Your task to perform on an android device: Go to sound settings Image 0: 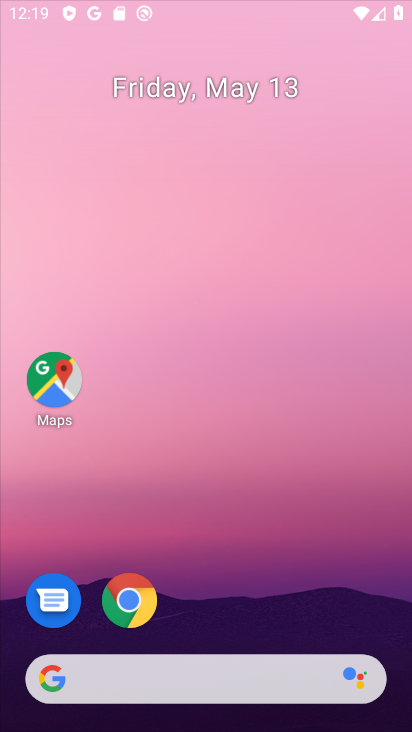
Step 0: click (223, 15)
Your task to perform on an android device: Go to sound settings Image 1: 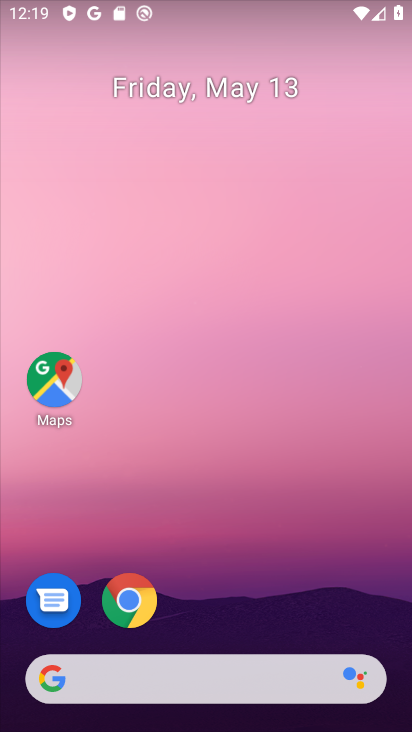
Step 1: drag from (212, 628) to (306, 114)
Your task to perform on an android device: Go to sound settings Image 2: 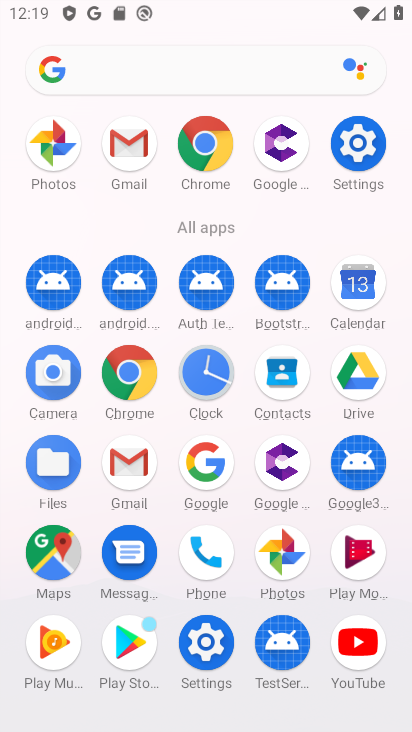
Step 2: click (350, 140)
Your task to perform on an android device: Go to sound settings Image 3: 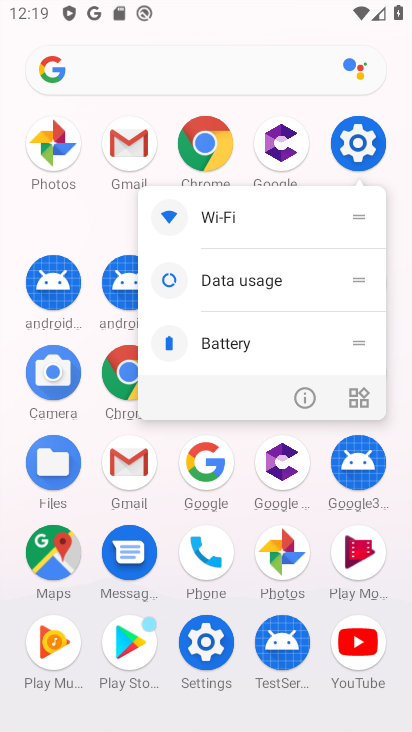
Step 3: click (301, 409)
Your task to perform on an android device: Go to sound settings Image 4: 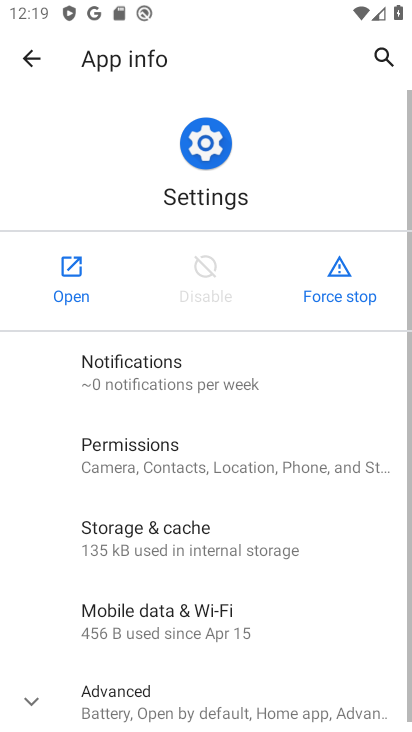
Step 4: click (71, 276)
Your task to perform on an android device: Go to sound settings Image 5: 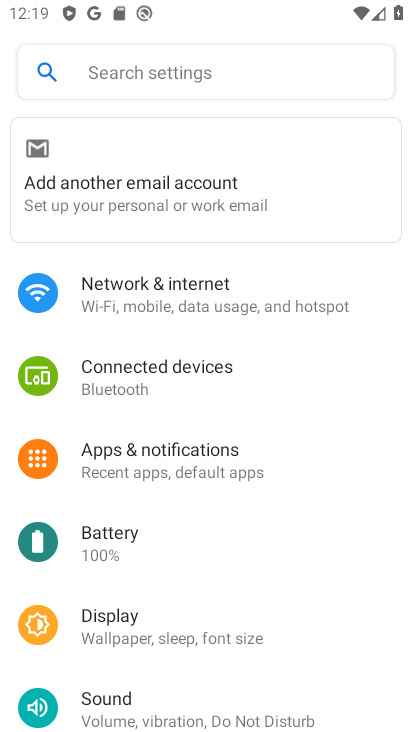
Step 5: click (155, 706)
Your task to perform on an android device: Go to sound settings Image 6: 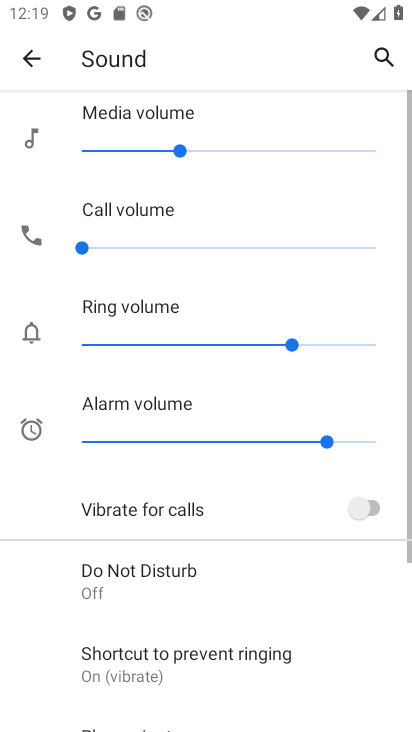
Step 6: task complete